Your task to perform on an android device: Open Google Chrome Image 0: 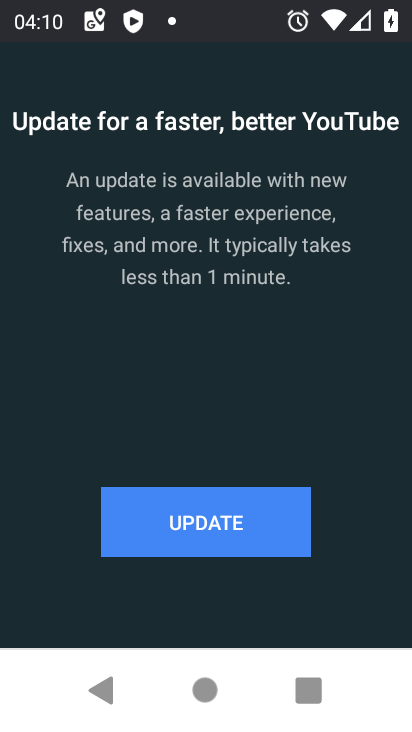
Step 0: press home button
Your task to perform on an android device: Open Google Chrome Image 1: 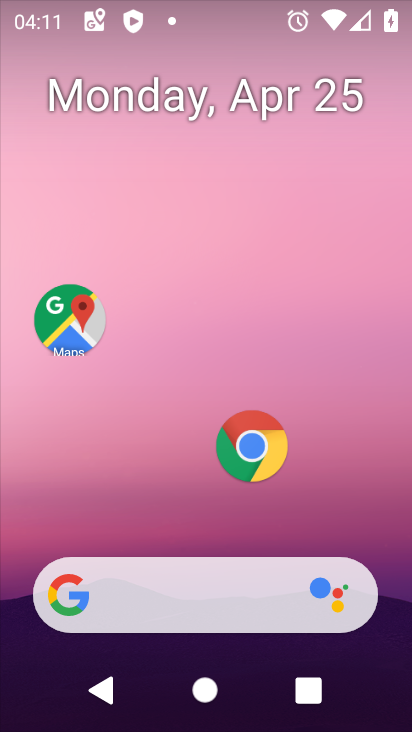
Step 1: click (250, 445)
Your task to perform on an android device: Open Google Chrome Image 2: 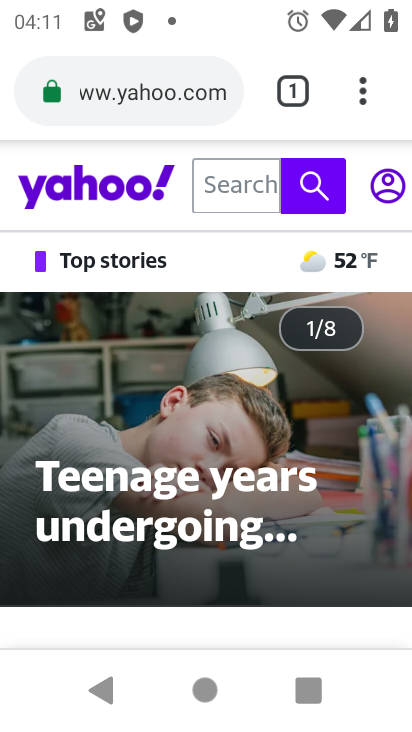
Step 2: task complete